Your task to perform on an android device: Open Maps and search for coffee Image 0: 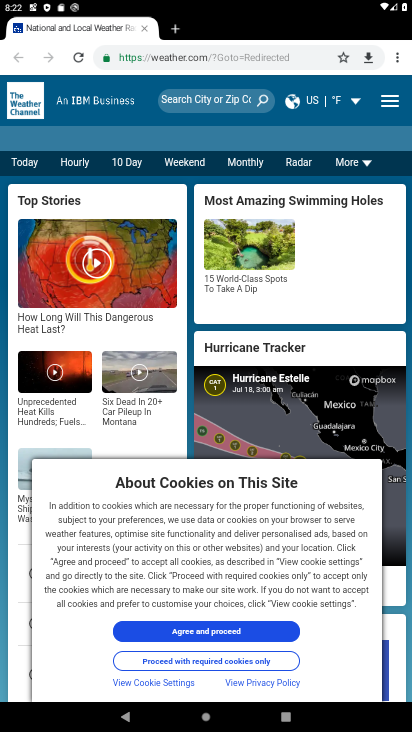
Step 0: press home button
Your task to perform on an android device: Open Maps and search for coffee Image 1: 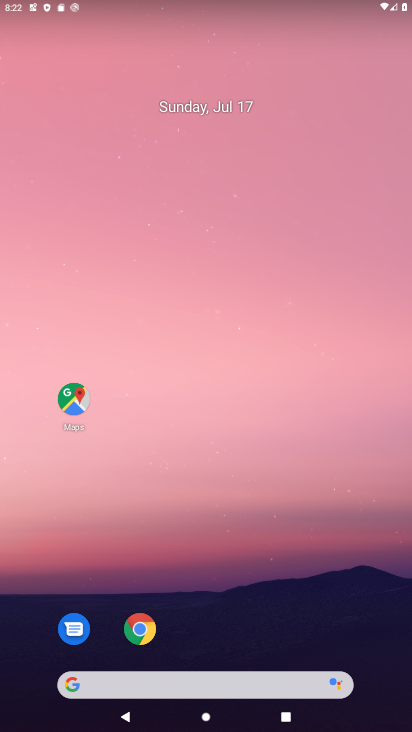
Step 1: drag from (232, 719) to (244, 136)
Your task to perform on an android device: Open Maps and search for coffee Image 2: 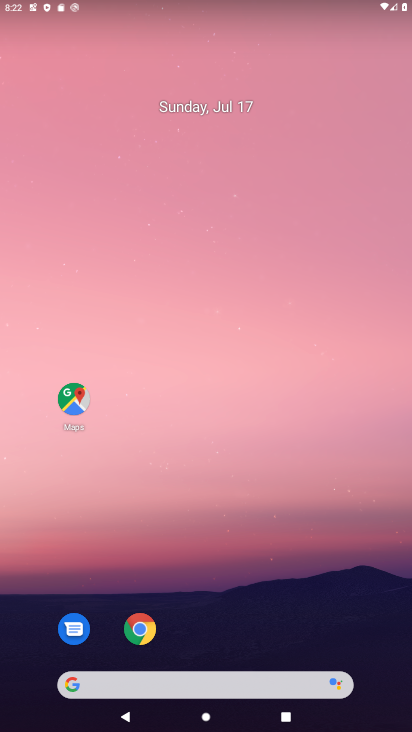
Step 2: drag from (231, 721) to (255, 178)
Your task to perform on an android device: Open Maps and search for coffee Image 3: 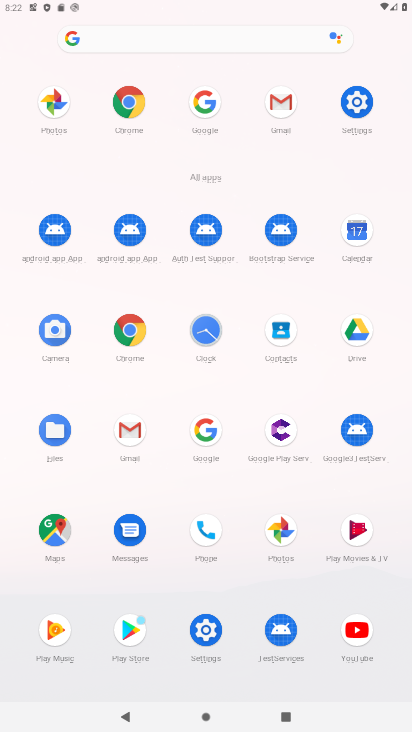
Step 3: click (49, 539)
Your task to perform on an android device: Open Maps and search for coffee Image 4: 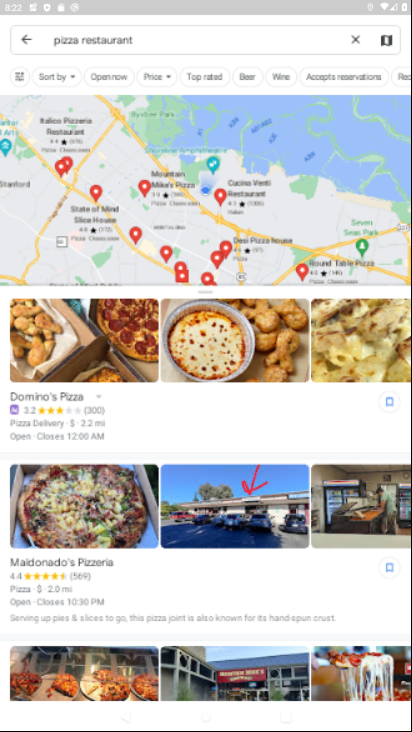
Step 4: click (365, 40)
Your task to perform on an android device: Open Maps and search for coffee Image 5: 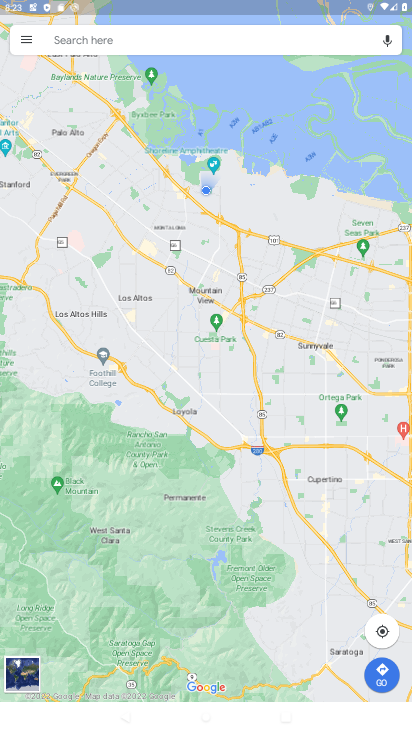
Step 5: click (134, 40)
Your task to perform on an android device: Open Maps and search for coffee Image 6: 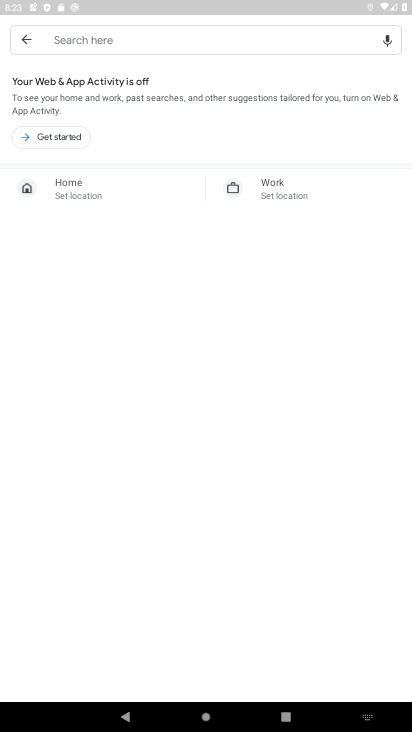
Step 6: click (172, 39)
Your task to perform on an android device: Open Maps and search for coffee Image 7: 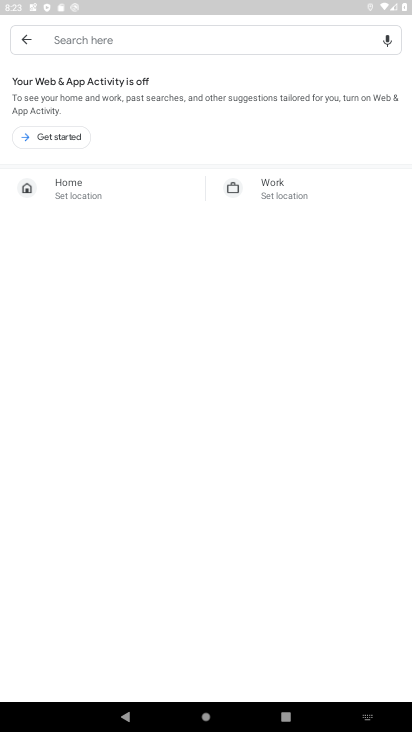
Step 7: type "coffee"
Your task to perform on an android device: Open Maps and search for coffee Image 8: 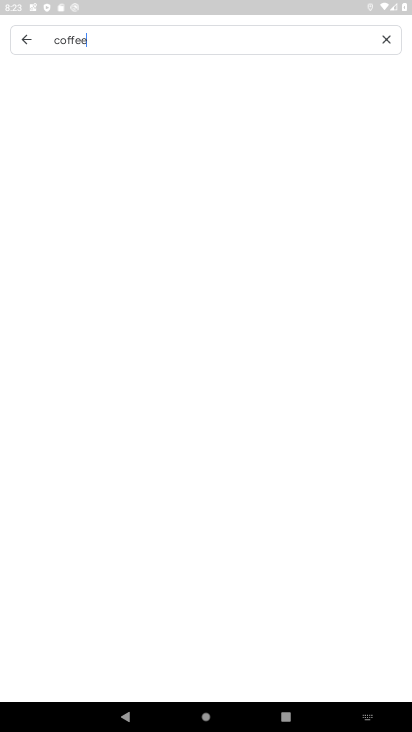
Step 8: type ""
Your task to perform on an android device: Open Maps and search for coffee Image 9: 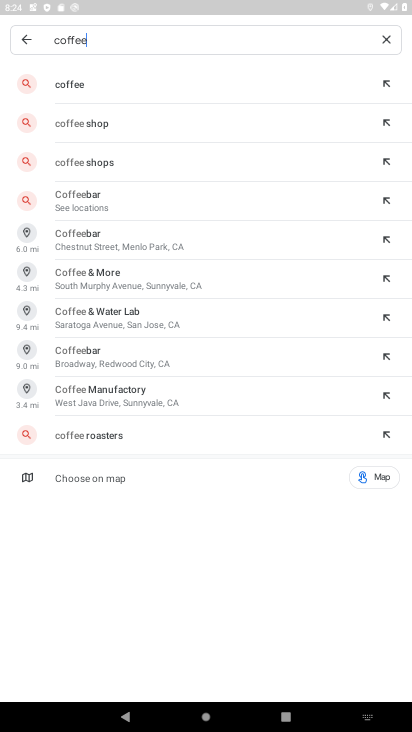
Step 9: click (64, 86)
Your task to perform on an android device: Open Maps and search for coffee Image 10: 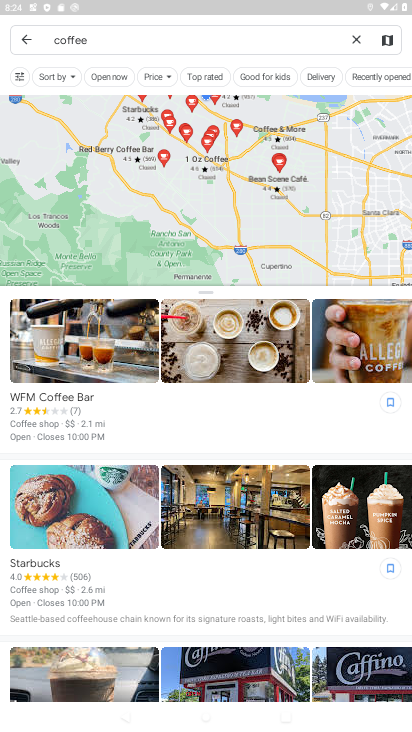
Step 10: task complete